Your task to perform on an android device: toggle javascript in the chrome app Image 0: 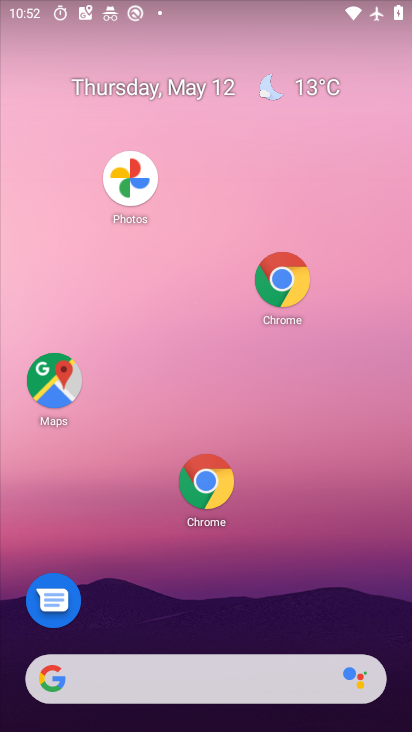
Step 0: drag from (403, 609) to (93, 54)
Your task to perform on an android device: toggle javascript in the chrome app Image 1: 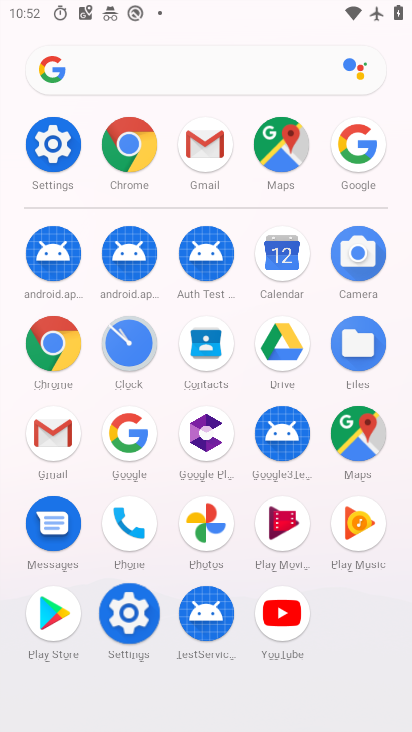
Step 1: click (116, 146)
Your task to perform on an android device: toggle javascript in the chrome app Image 2: 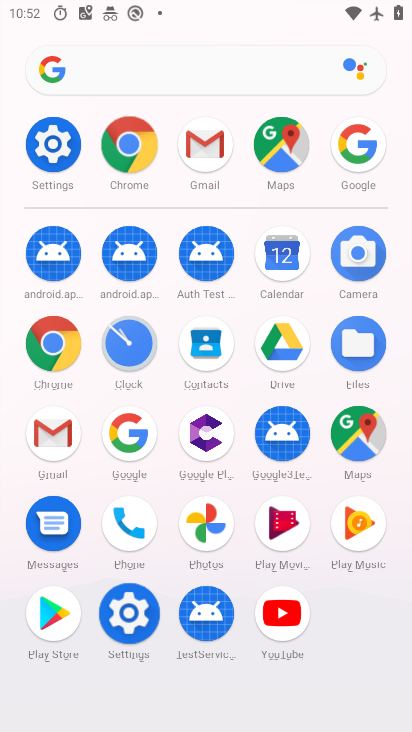
Step 2: click (116, 146)
Your task to perform on an android device: toggle javascript in the chrome app Image 3: 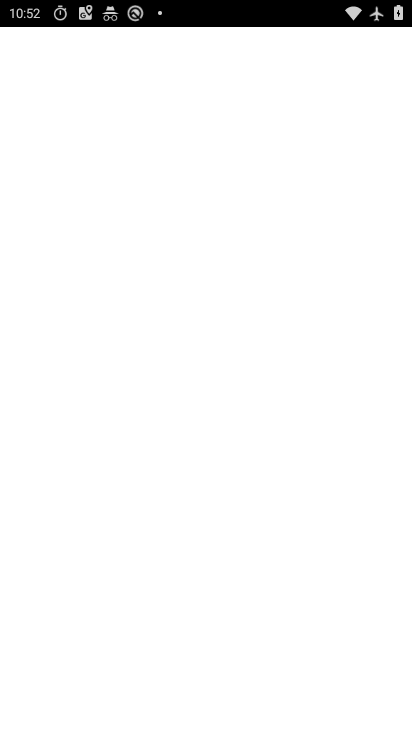
Step 3: click (116, 146)
Your task to perform on an android device: toggle javascript in the chrome app Image 4: 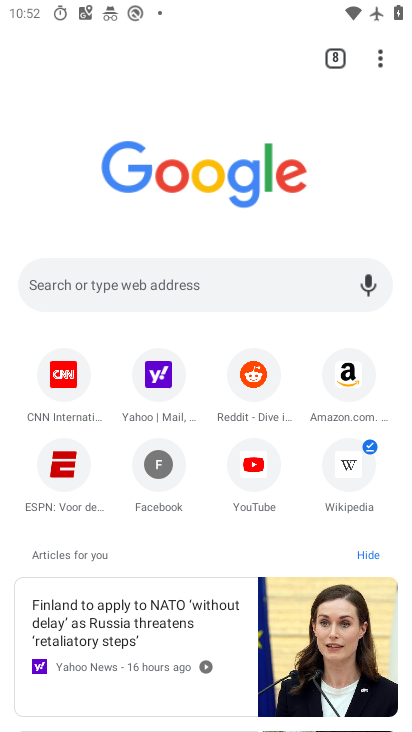
Step 4: drag from (376, 53) to (161, 488)
Your task to perform on an android device: toggle javascript in the chrome app Image 5: 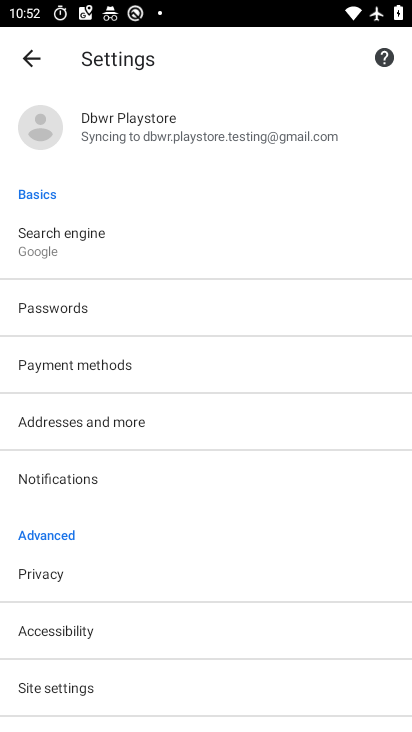
Step 5: drag from (116, 454) to (14, 23)
Your task to perform on an android device: toggle javascript in the chrome app Image 6: 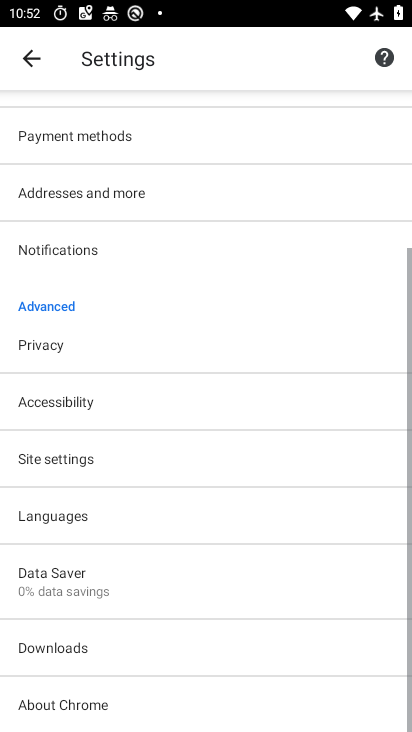
Step 6: drag from (165, 458) to (103, 2)
Your task to perform on an android device: toggle javascript in the chrome app Image 7: 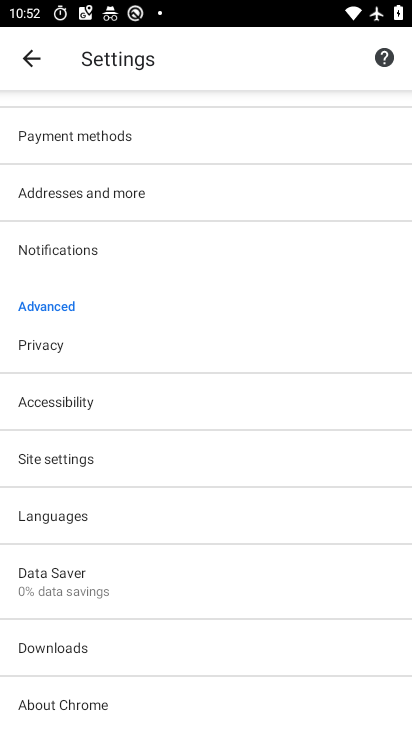
Step 7: click (55, 465)
Your task to perform on an android device: toggle javascript in the chrome app Image 8: 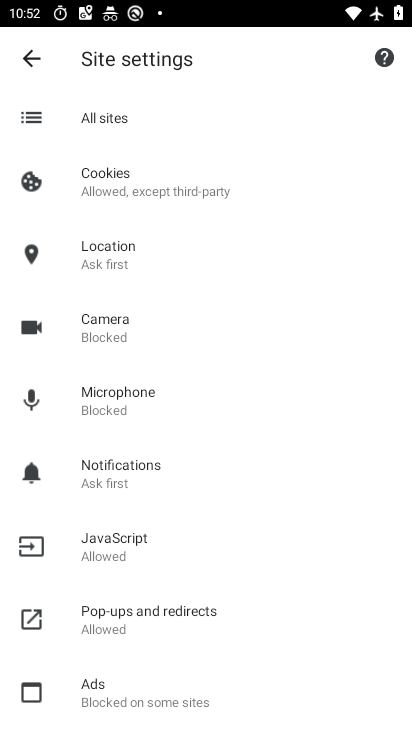
Step 8: click (113, 548)
Your task to perform on an android device: toggle javascript in the chrome app Image 9: 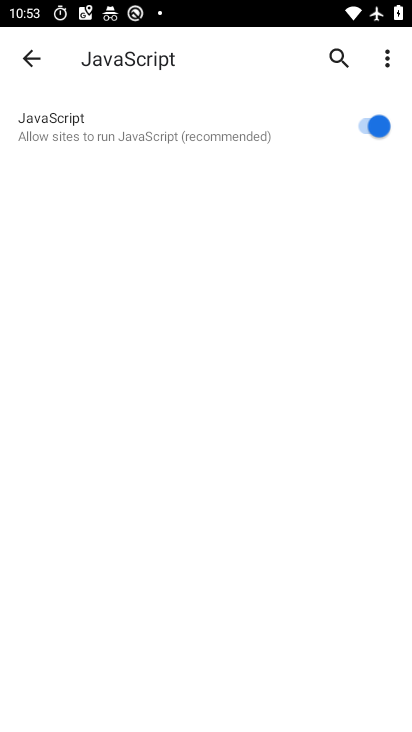
Step 9: click (375, 123)
Your task to perform on an android device: toggle javascript in the chrome app Image 10: 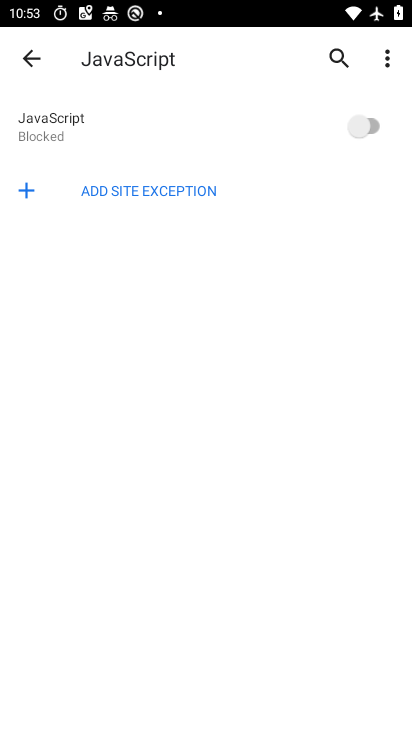
Step 10: task complete